Your task to perform on an android device: Search for "lenovo thinkpad" on amazon, select the first entry, and add it to the cart. Image 0: 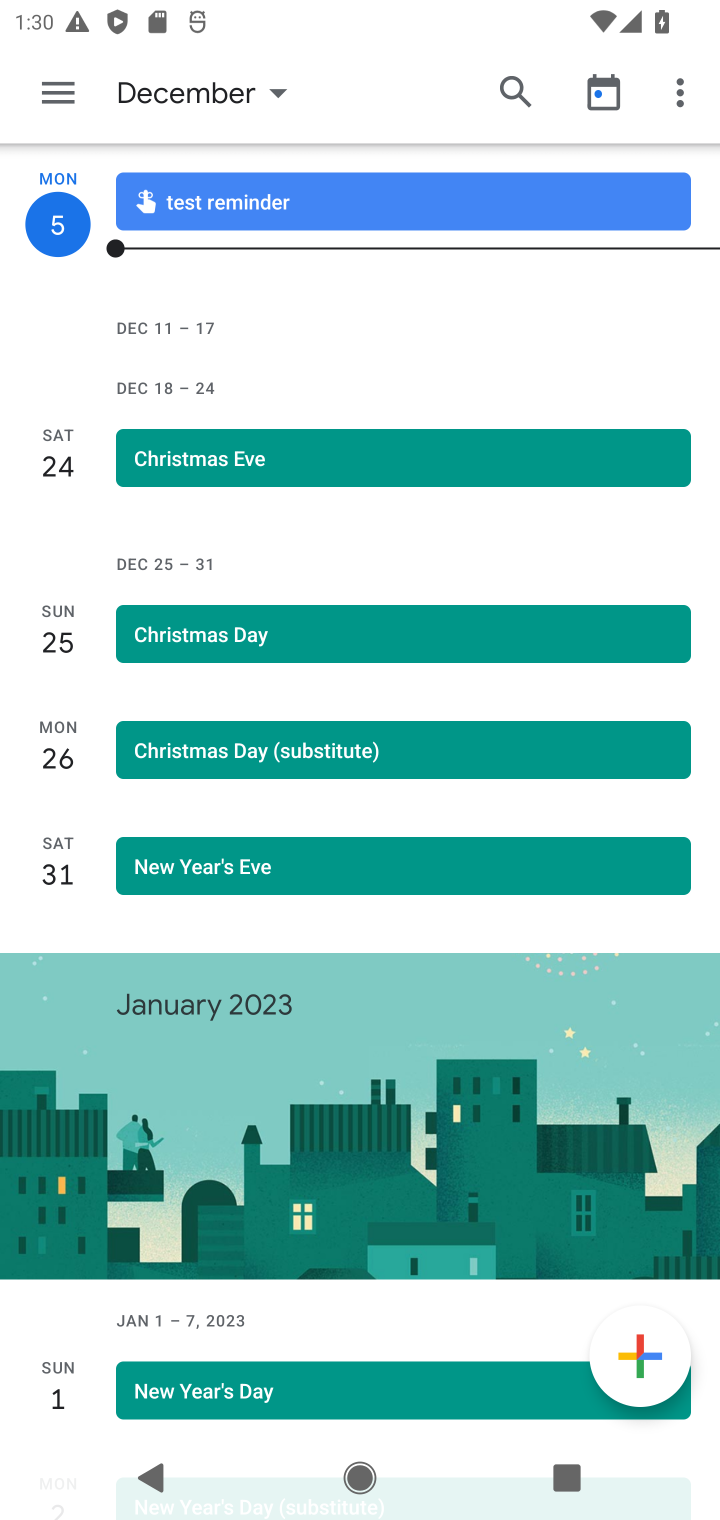
Step 0: press home button
Your task to perform on an android device: Search for "lenovo thinkpad" on amazon, select the first entry, and add it to the cart. Image 1: 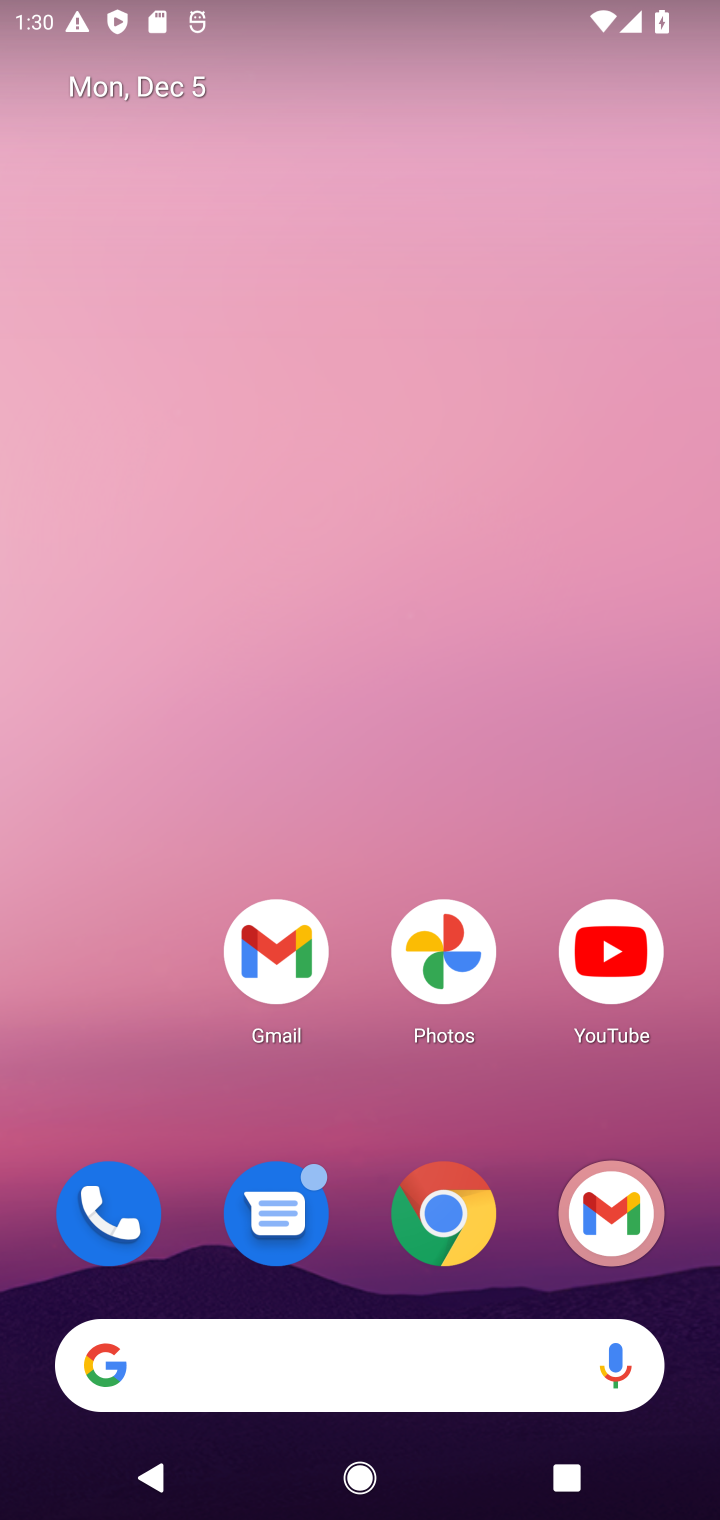
Step 1: click (462, 1230)
Your task to perform on an android device: Search for "lenovo thinkpad" on amazon, select the first entry, and add it to the cart. Image 2: 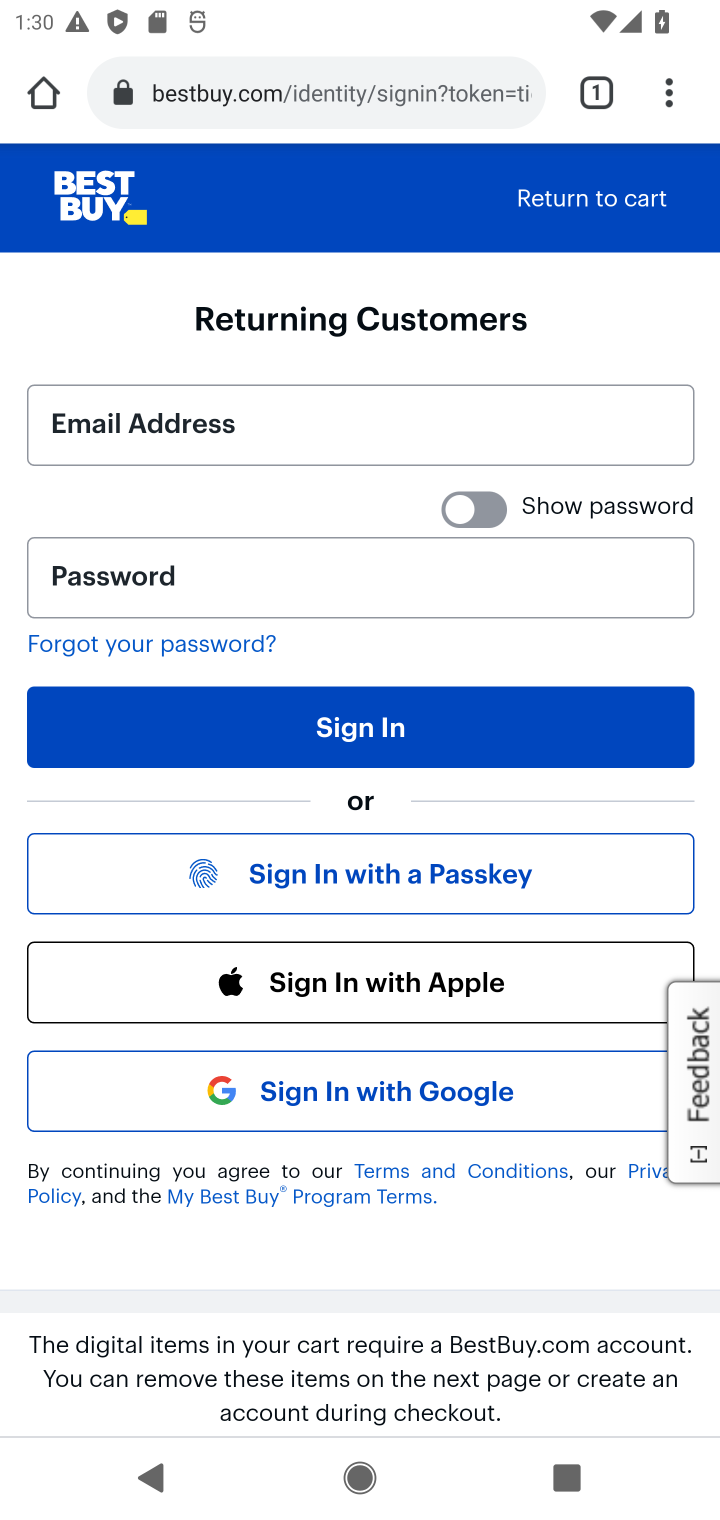
Step 2: click (277, 94)
Your task to perform on an android device: Search for "lenovo thinkpad" on amazon, select the first entry, and add it to the cart. Image 3: 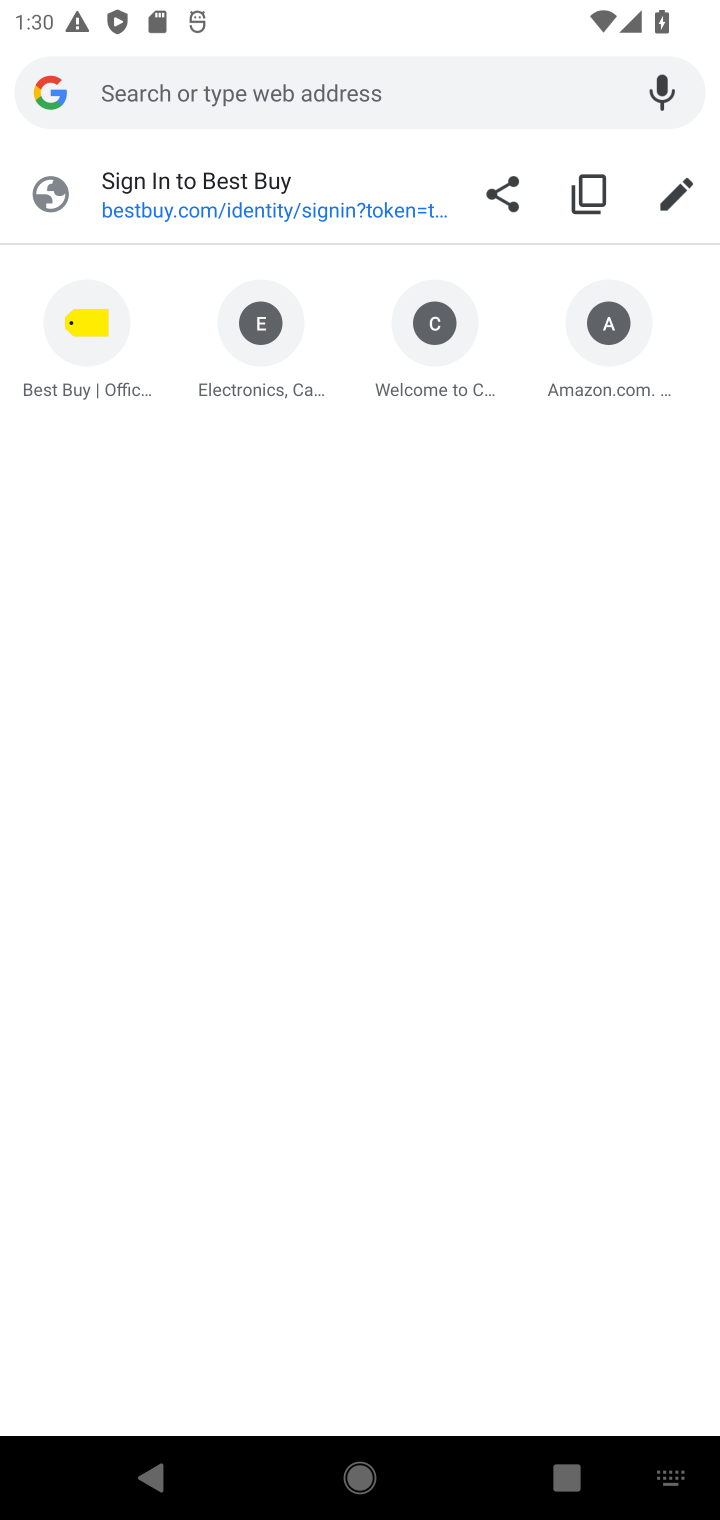
Step 3: click (584, 358)
Your task to perform on an android device: Search for "lenovo thinkpad" on amazon, select the first entry, and add it to the cart. Image 4: 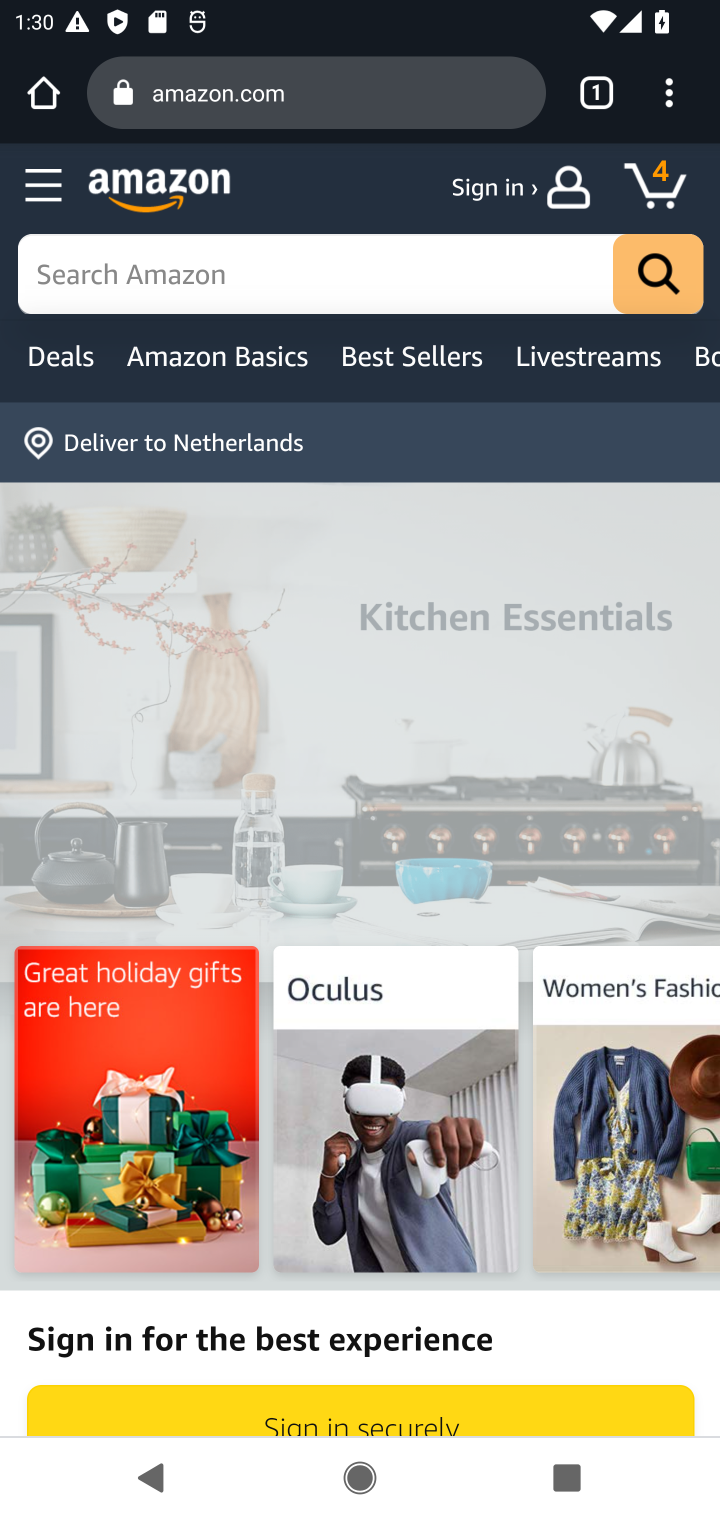
Step 4: click (298, 275)
Your task to perform on an android device: Search for "lenovo thinkpad" on amazon, select the first entry, and add it to the cart. Image 5: 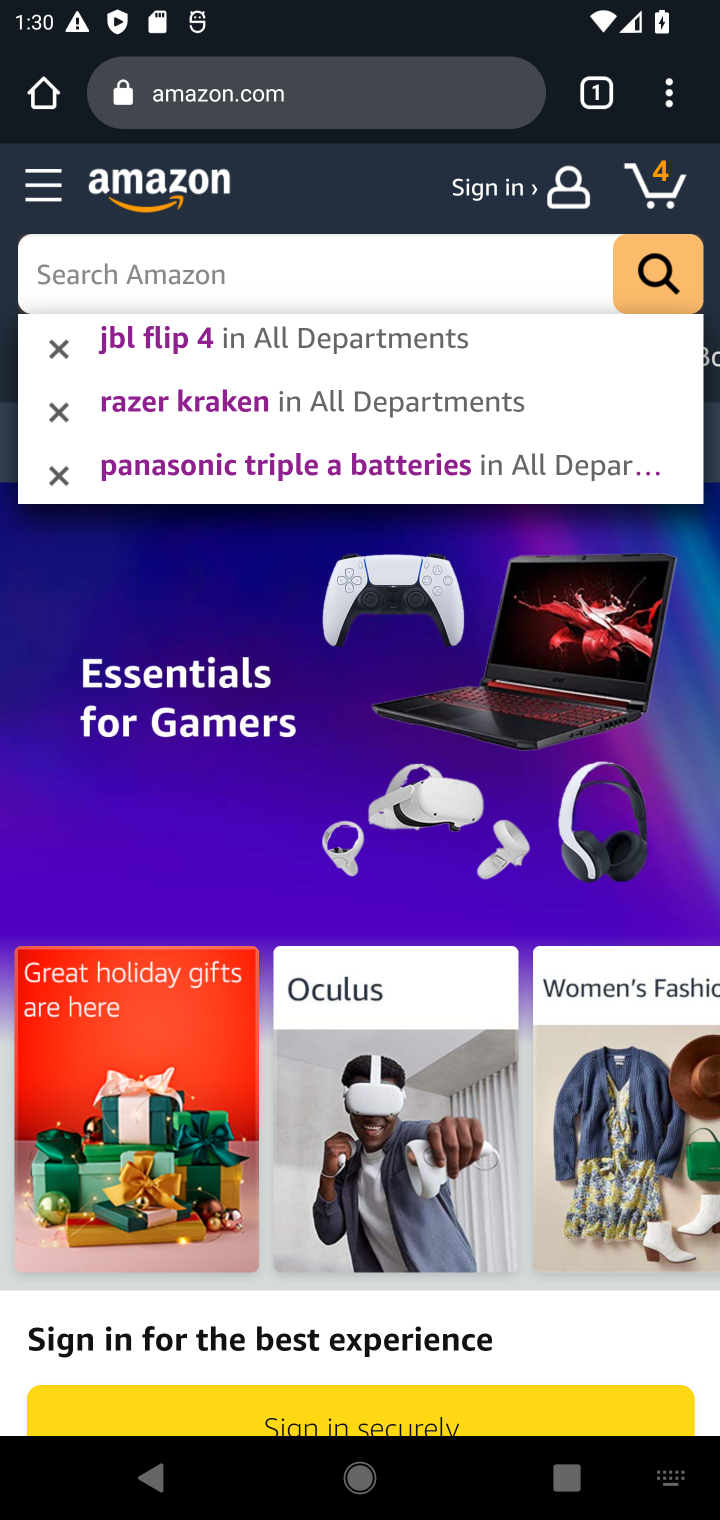
Step 5: type "lenovo thinkpad"
Your task to perform on an android device: Search for "lenovo thinkpad" on amazon, select the first entry, and add it to the cart. Image 6: 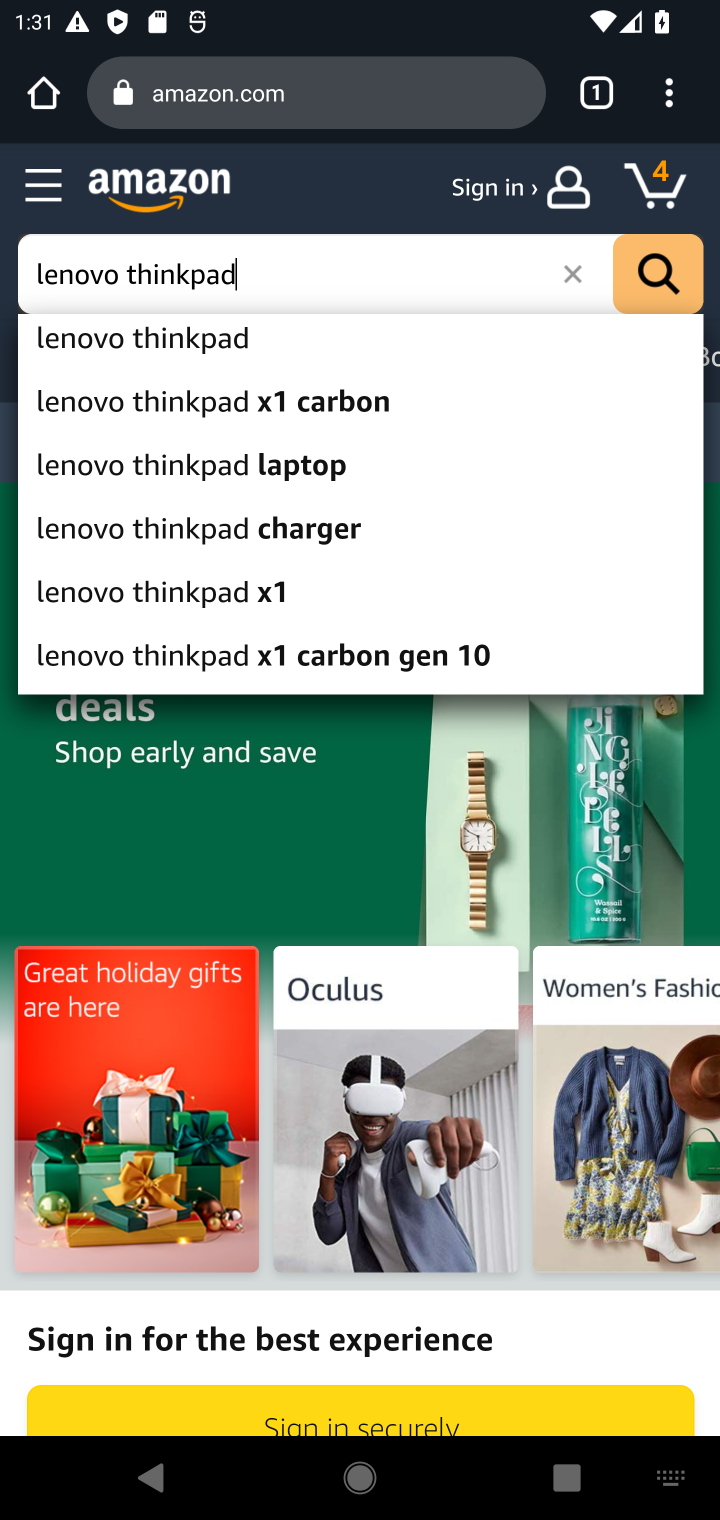
Step 6: click (213, 342)
Your task to perform on an android device: Search for "lenovo thinkpad" on amazon, select the first entry, and add it to the cart. Image 7: 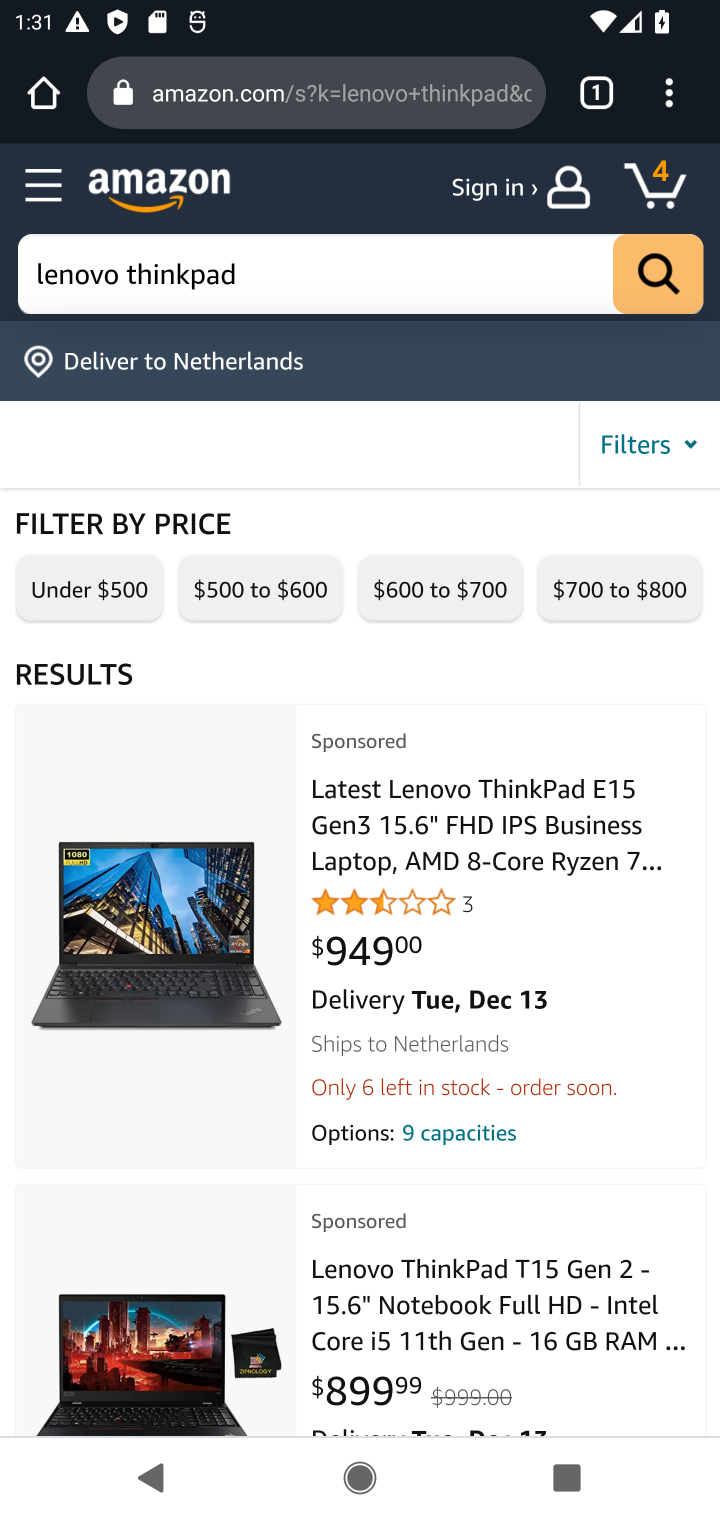
Step 7: click (510, 858)
Your task to perform on an android device: Search for "lenovo thinkpad" on amazon, select the first entry, and add it to the cart. Image 8: 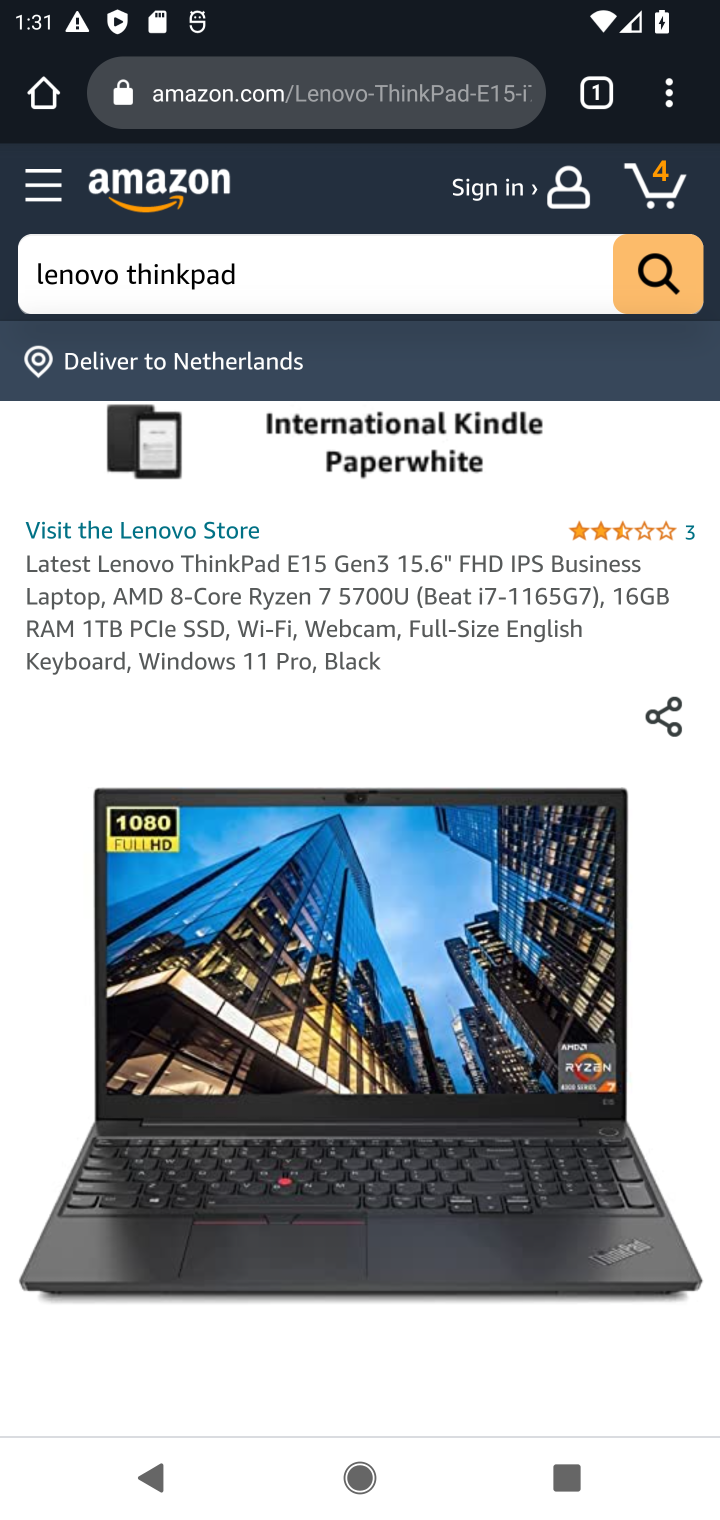
Step 8: drag from (346, 976) to (360, 407)
Your task to perform on an android device: Search for "lenovo thinkpad" on amazon, select the first entry, and add it to the cart. Image 9: 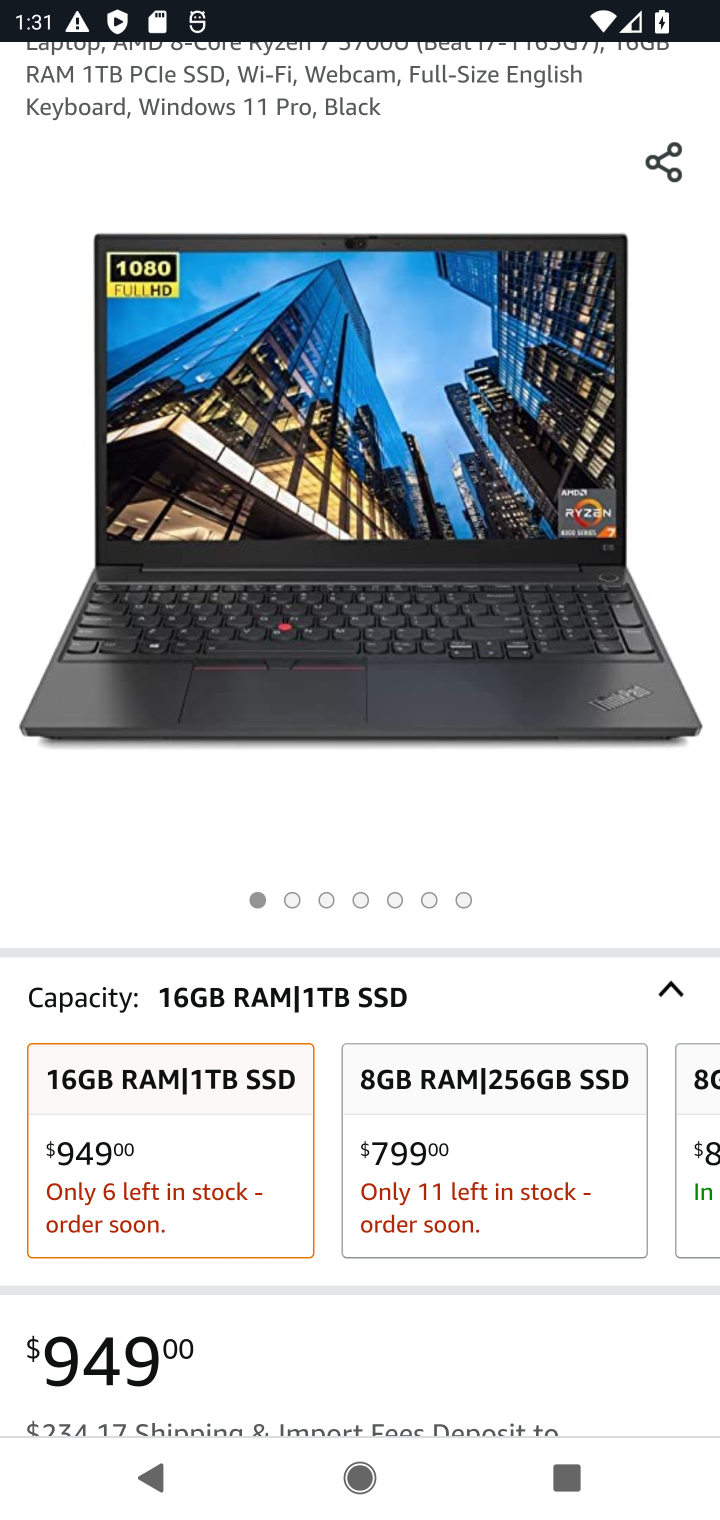
Step 9: drag from (468, 921) to (428, 260)
Your task to perform on an android device: Search for "lenovo thinkpad" on amazon, select the first entry, and add it to the cart. Image 10: 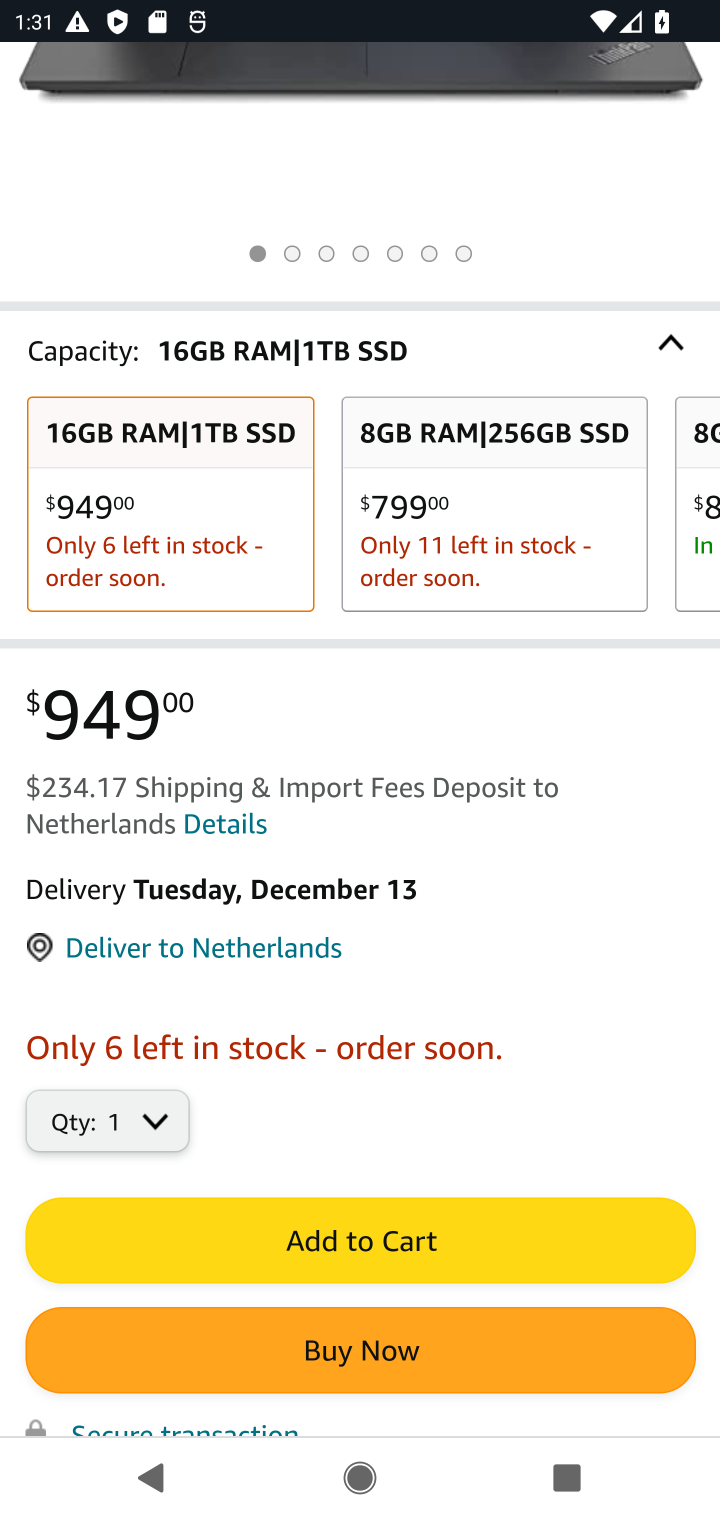
Step 10: click (326, 1241)
Your task to perform on an android device: Search for "lenovo thinkpad" on amazon, select the first entry, and add it to the cart. Image 11: 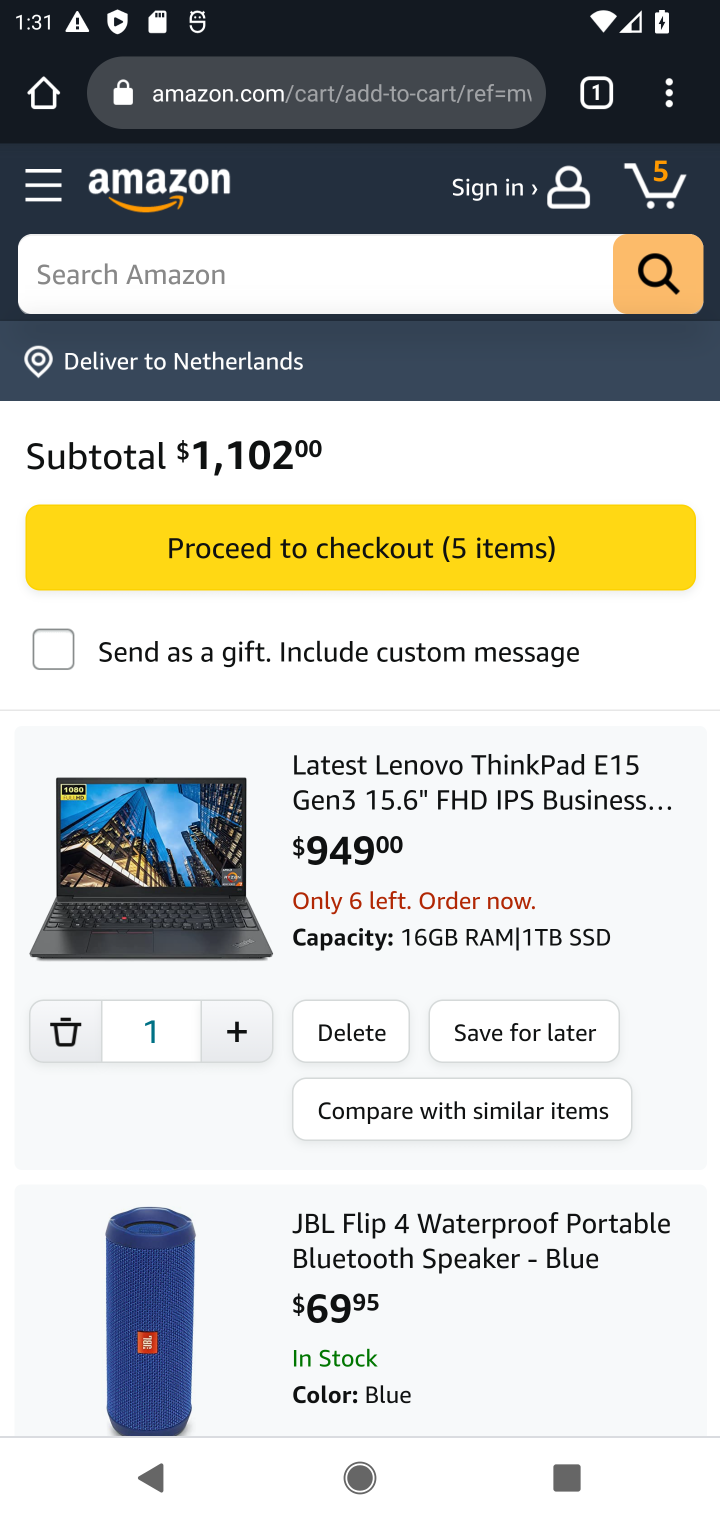
Step 11: task complete